Your task to perform on an android device: turn off data saver in the chrome app Image 0: 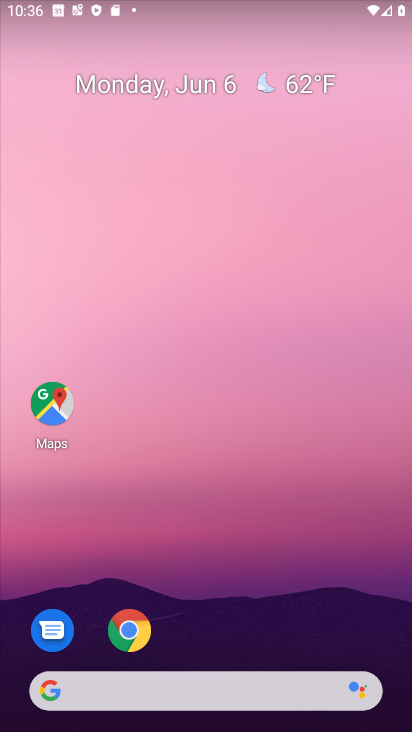
Step 0: drag from (281, 627) to (286, 182)
Your task to perform on an android device: turn off data saver in the chrome app Image 1: 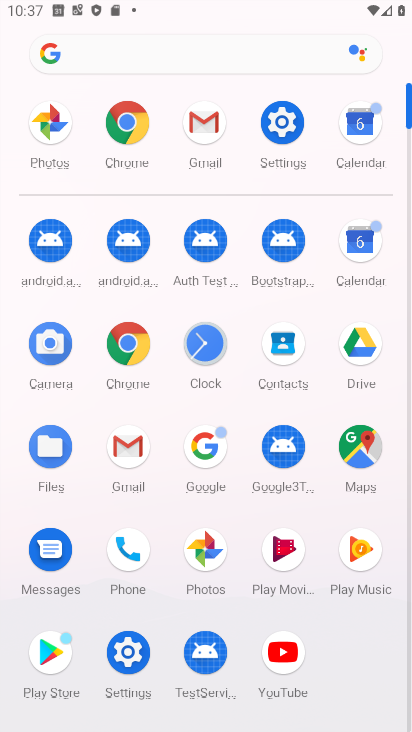
Step 1: click (141, 357)
Your task to perform on an android device: turn off data saver in the chrome app Image 2: 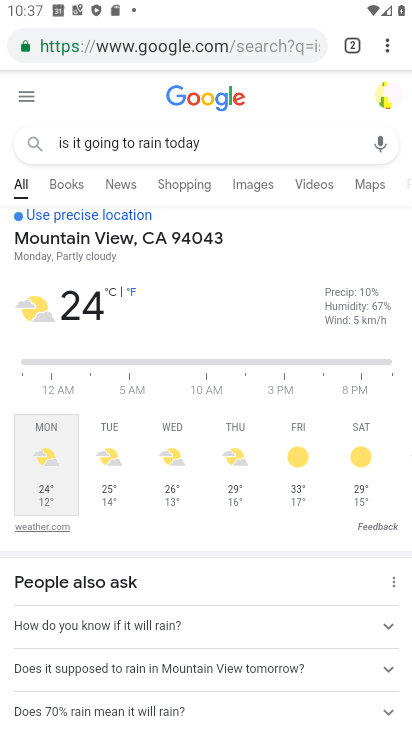
Step 2: task complete